Your task to perform on an android device: Go to sound settings Image 0: 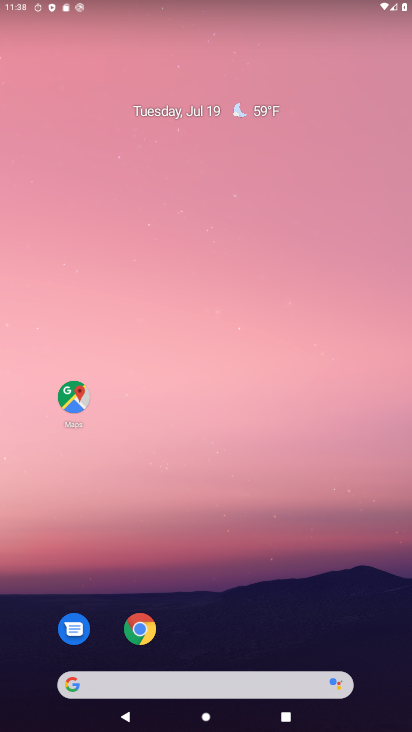
Step 0: drag from (274, 645) to (296, 2)
Your task to perform on an android device: Go to sound settings Image 1: 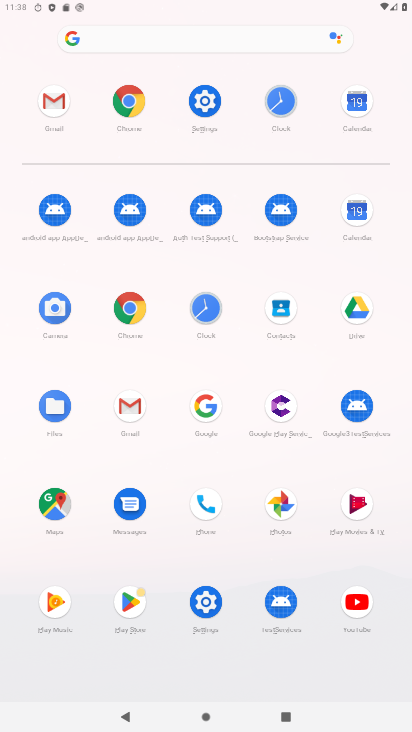
Step 1: click (215, 99)
Your task to perform on an android device: Go to sound settings Image 2: 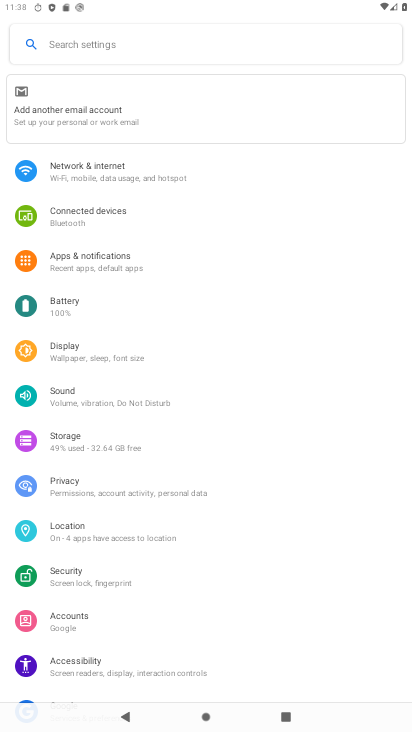
Step 2: click (85, 404)
Your task to perform on an android device: Go to sound settings Image 3: 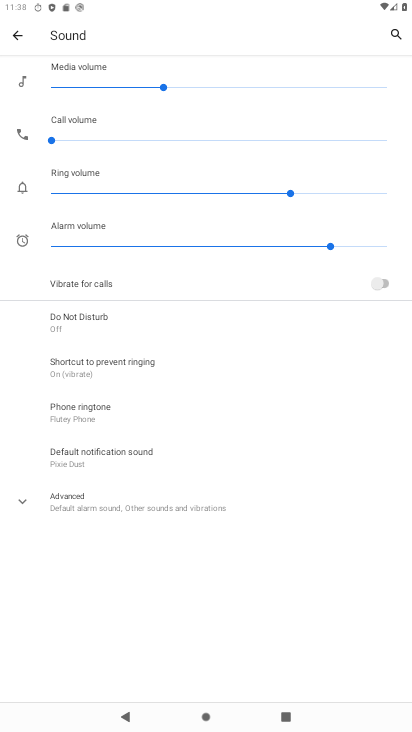
Step 3: task complete